Your task to perform on an android device: empty trash in the gmail app Image 0: 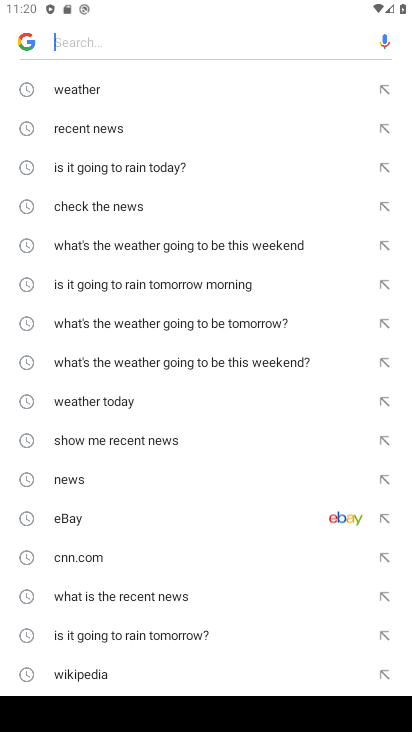
Step 0: press home button
Your task to perform on an android device: empty trash in the gmail app Image 1: 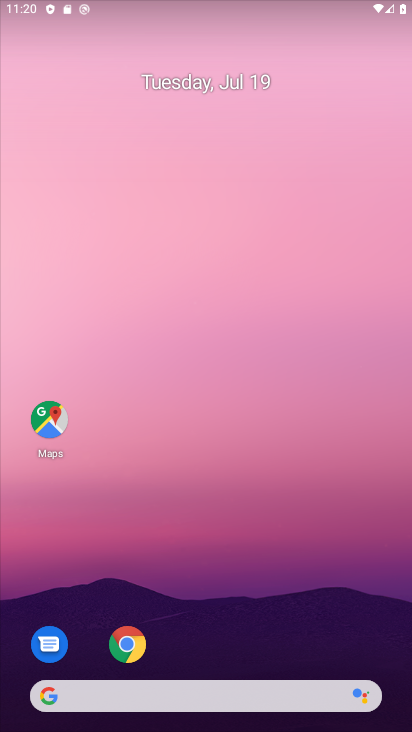
Step 1: drag from (158, 479) to (211, 42)
Your task to perform on an android device: empty trash in the gmail app Image 2: 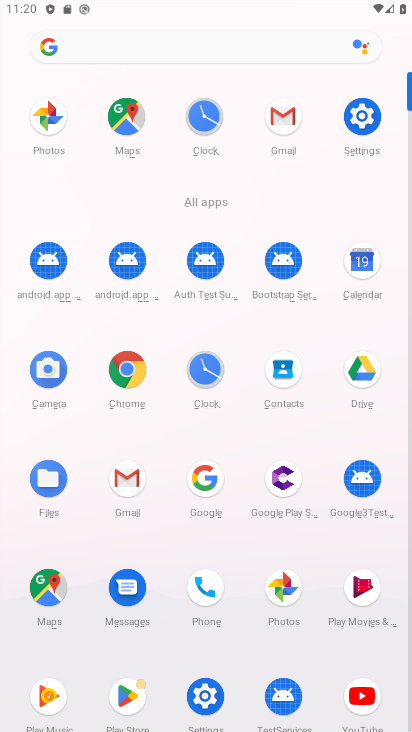
Step 2: click (132, 480)
Your task to perform on an android device: empty trash in the gmail app Image 3: 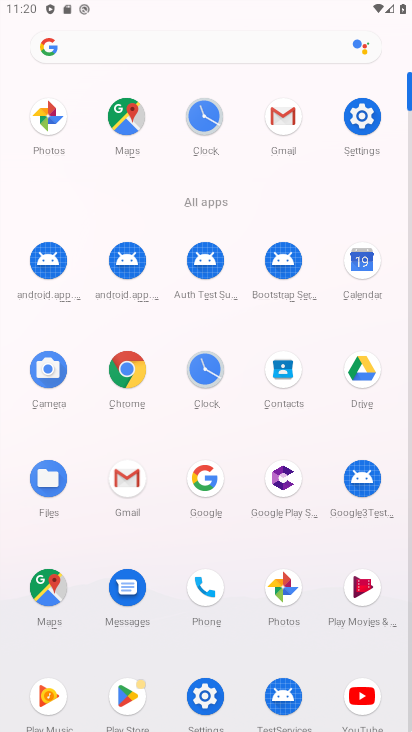
Step 3: click (132, 480)
Your task to perform on an android device: empty trash in the gmail app Image 4: 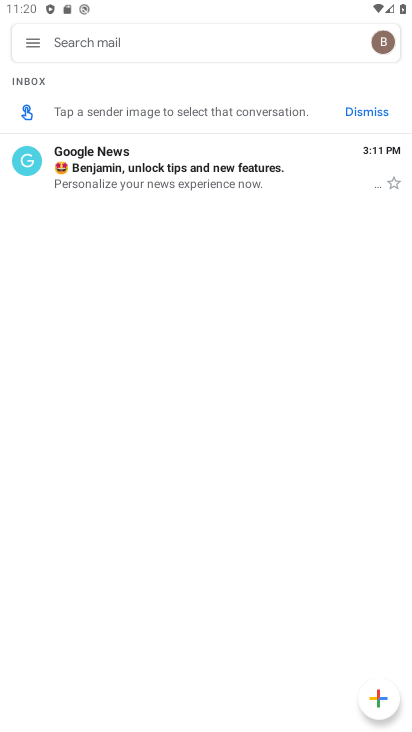
Step 4: click (35, 38)
Your task to perform on an android device: empty trash in the gmail app Image 5: 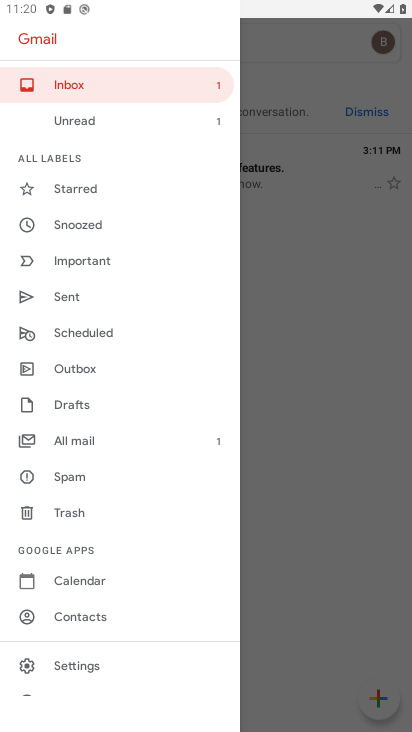
Step 5: click (80, 510)
Your task to perform on an android device: empty trash in the gmail app Image 6: 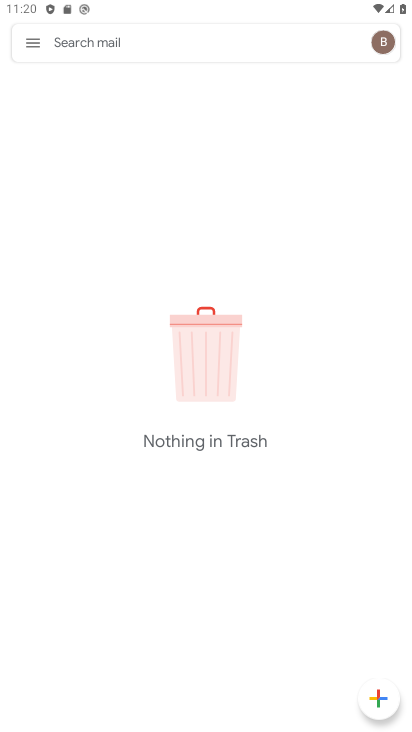
Step 6: task complete